Your task to perform on an android device: Go to internet settings Image 0: 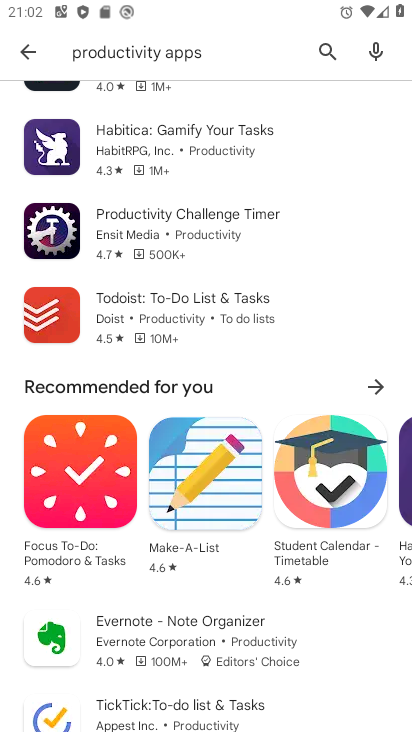
Step 0: press home button
Your task to perform on an android device: Go to internet settings Image 1: 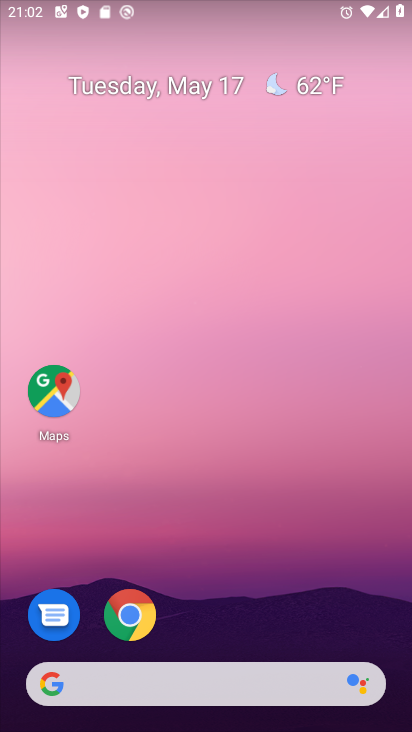
Step 1: drag from (249, 605) to (190, 45)
Your task to perform on an android device: Go to internet settings Image 2: 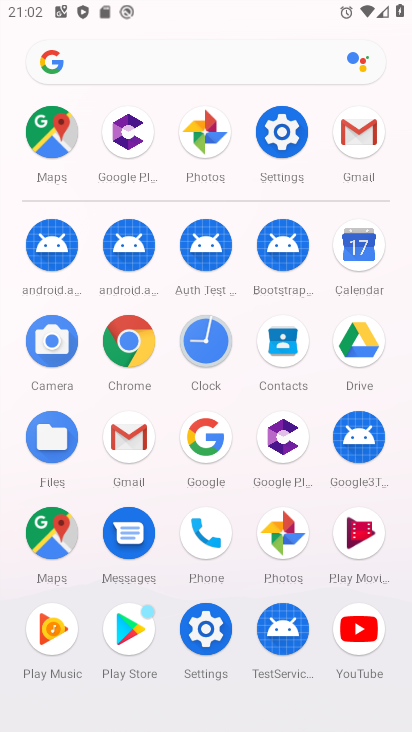
Step 2: click (269, 135)
Your task to perform on an android device: Go to internet settings Image 3: 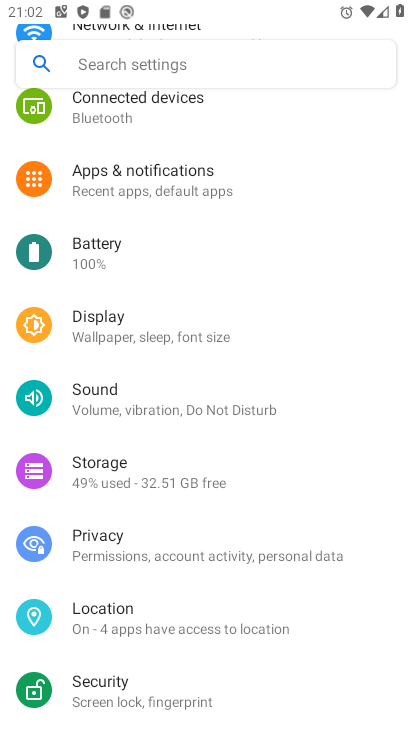
Step 3: drag from (196, 124) to (231, 550)
Your task to perform on an android device: Go to internet settings Image 4: 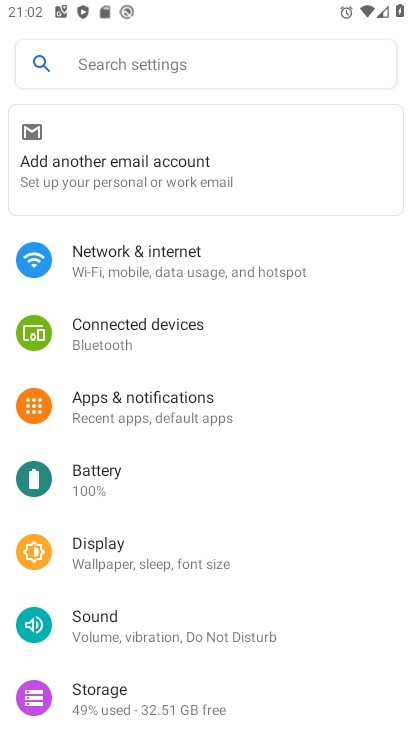
Step 4: click (146, 256)
Your task to perform on an android device: Go to internet settings Image 5: 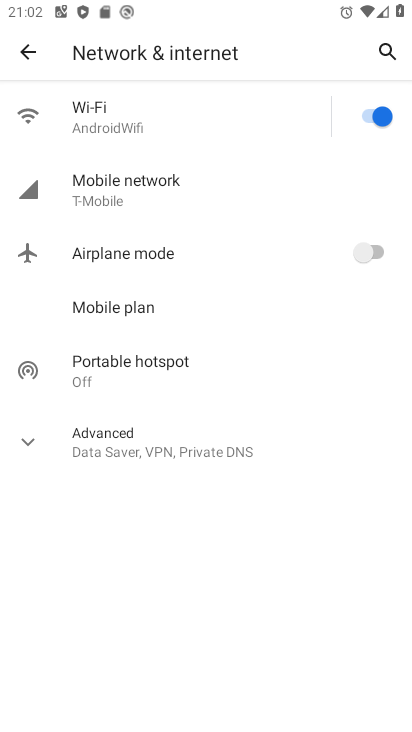
Step 5: task complete